Your task to perform on an android device: create a new album in the google photos Image 0: 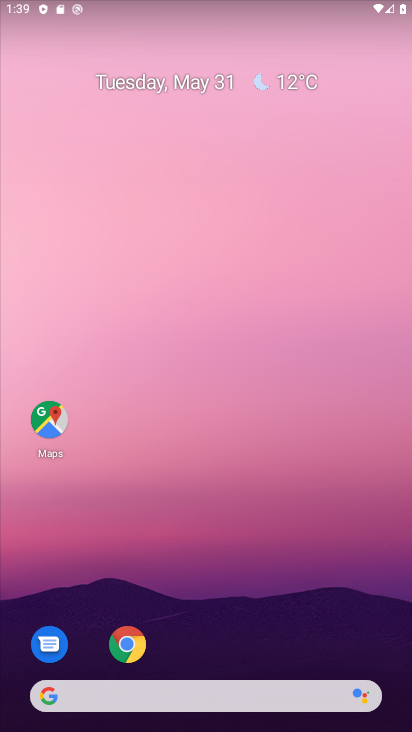
Step 0: drag from (192, 671) to (279, 234)
Your task to perform on an android device: create a new album in the google photos Image 1: 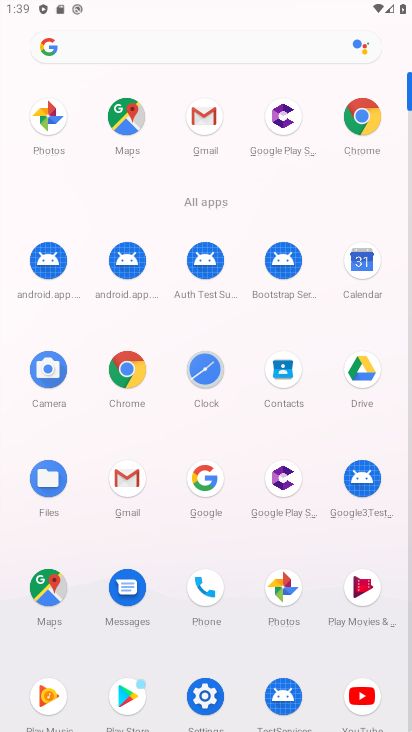
Step 1: click (291, 588)
Your task to perform on an android device: create a new album in the google photos Image 2: 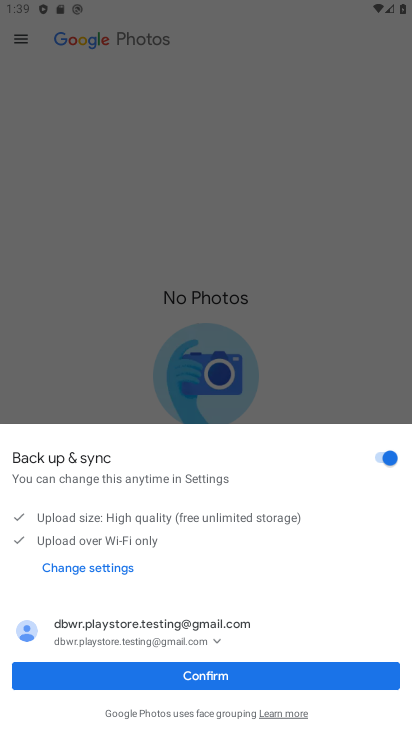
Step 2: click (265, 681)
Your task to perform on an android device: create a new album in the google photos Image 3: 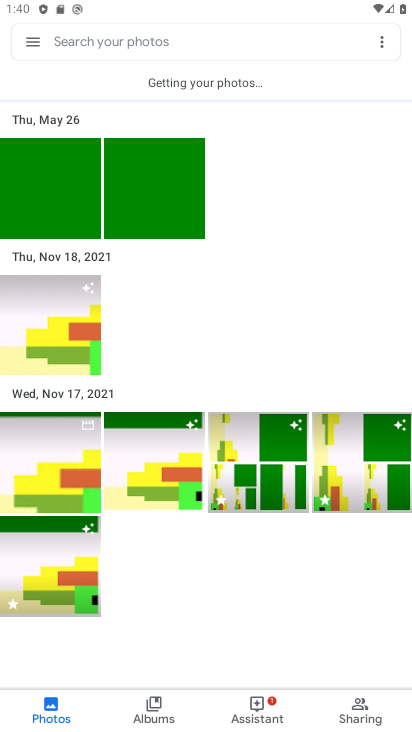
Step 3: click (66, 466)
Your task to perform on an android device: create a new album in the google photos Image 4: 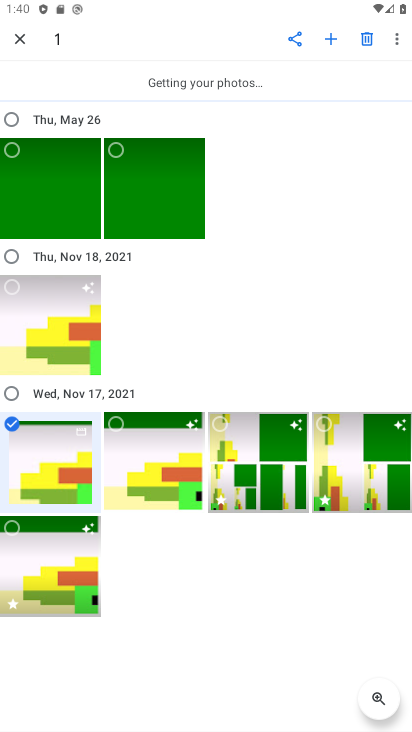
Step 4: click (7, 388)
Your task to perform on an android device: create a new album in the google photos Image 5: 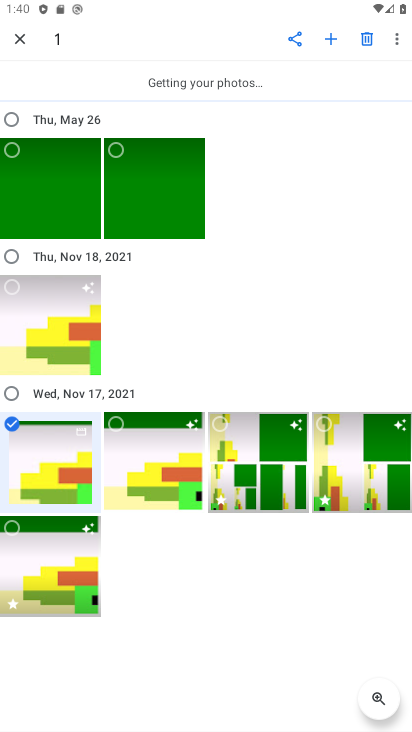
Step 5: click (14, 396)
Your task to perform on an android device: create a new album in the google photos Image 6: 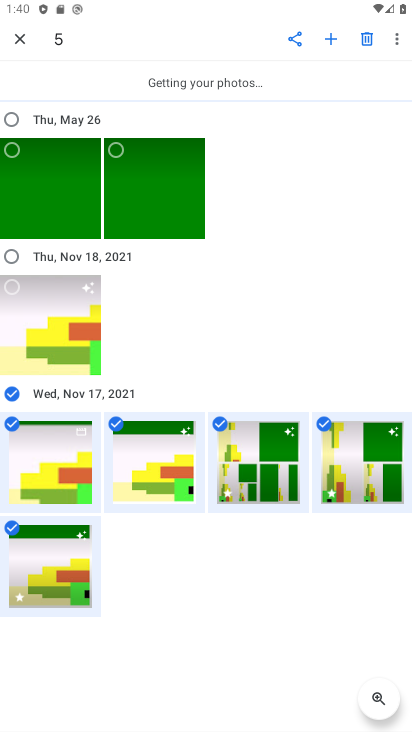
Step 6: click (332, 47)
Your task to perform on an android device: create a new album in the google photos Image 7: 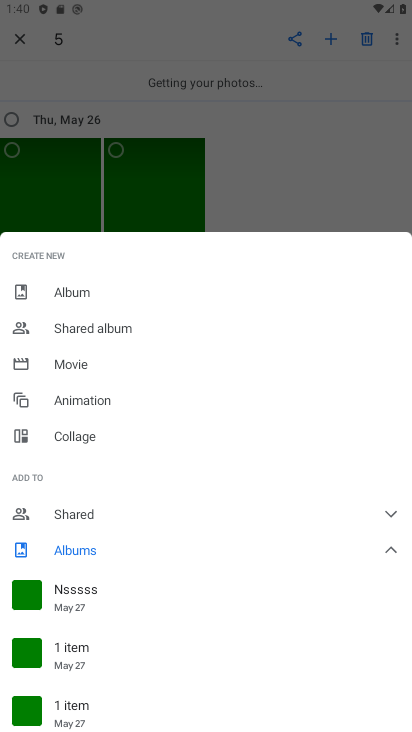
Step 7: click (131, 302)
Your task to perform on an android device: create a new album in the google photos Image 8: 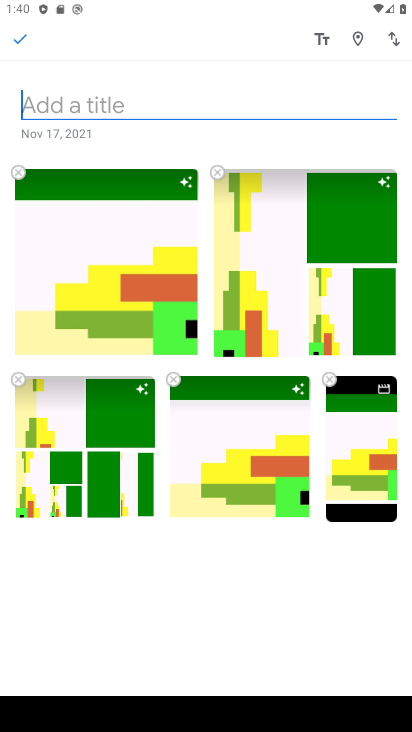
Step 8: type "bbbbbb"
Your task to perform on an android device: create a new album in the google photos Image 9: 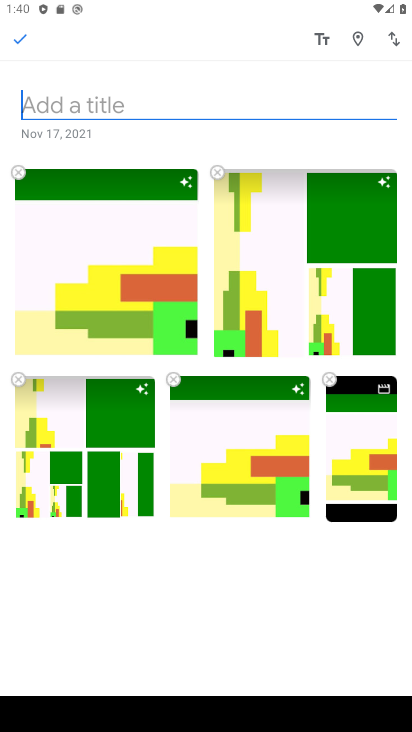
Step 9: click (19, 52)
Your task to perform on an android device: create a new album in the google photos Image 10: 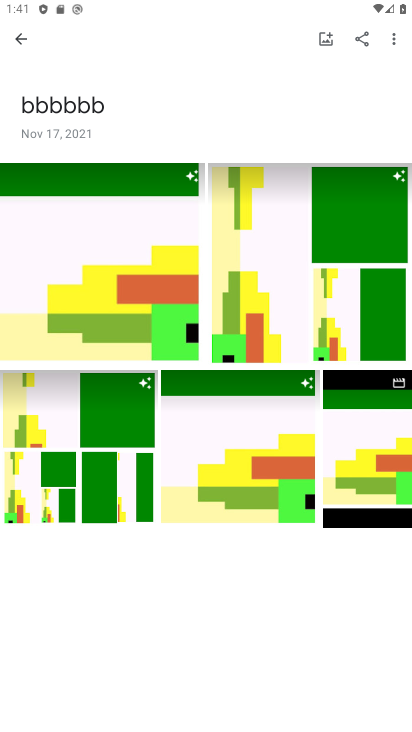
Step 10: task complete